Your task to perform on an android device: show emergency info Image 0: 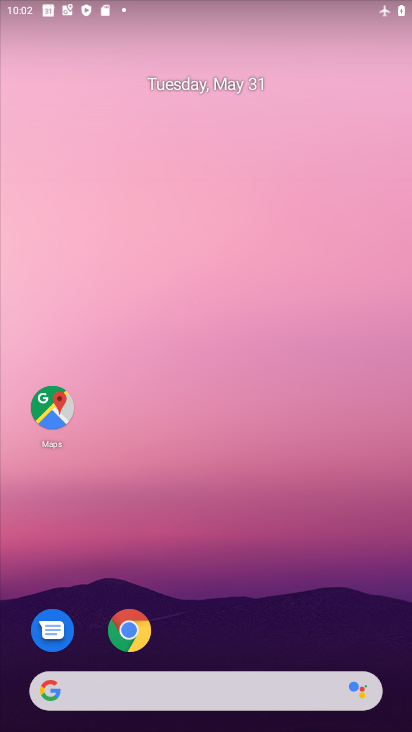
Step 0: drag from (236, 545) to (227, 242)
Your task to perform on an android device: show emergency info Image 1: 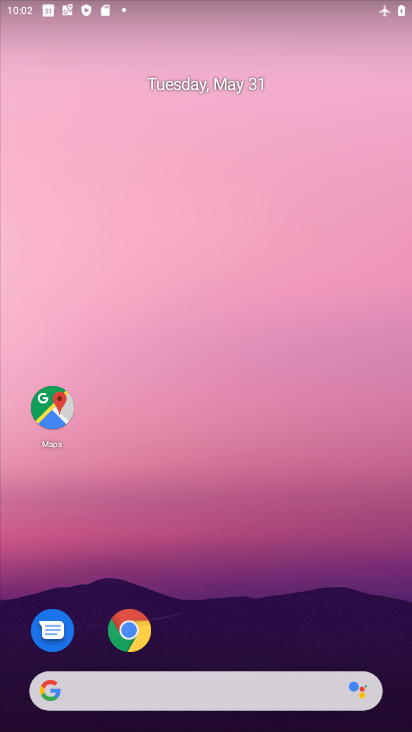
Step 1: drag from (229, 691) to (218, 252)
Your task to perform on an android device: show emergency info Image 2: 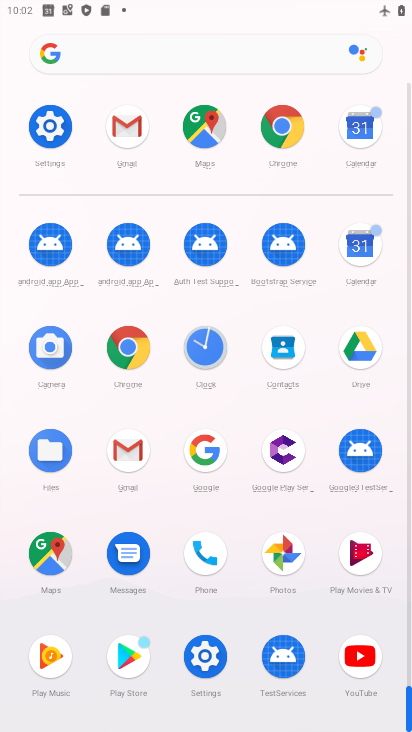
Step 2: click (42, 121)
Your task to perform on an android device: show emergency info Image 3: 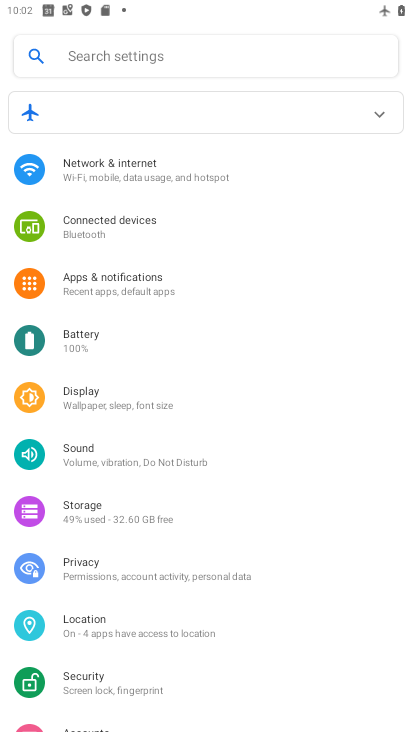
Step 3: drag from (212, 636) to (211, 189)
Your task to perform on an android device: show emergency info Image 4: 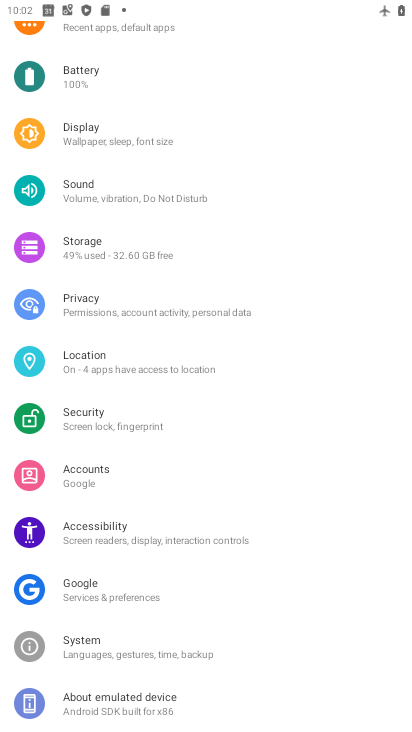
Step 4: drag from (173, 702) to (194, 399)
Your task to perform on an android device: show emergency info Image 5: 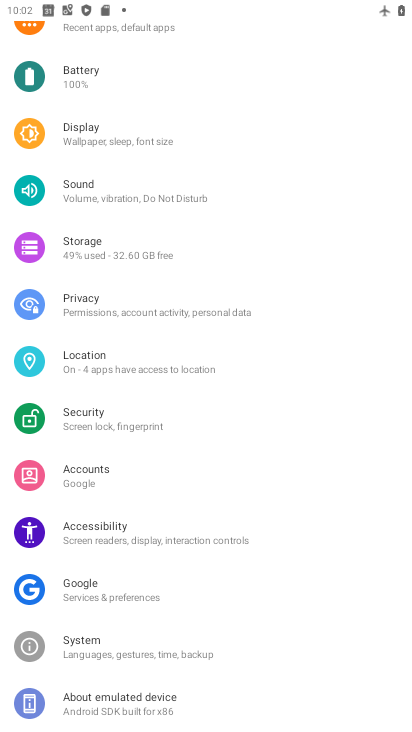
Step 5: drag from (167, 619) to (189, 311)
Your task to perform on an android device: show emergency info Image 6: 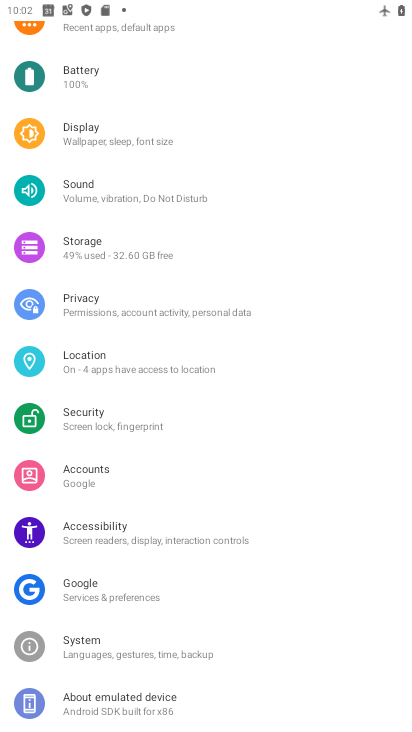
Step 6: click (152, 700)
Your task to perform on an android device: show emergency info Image 7: 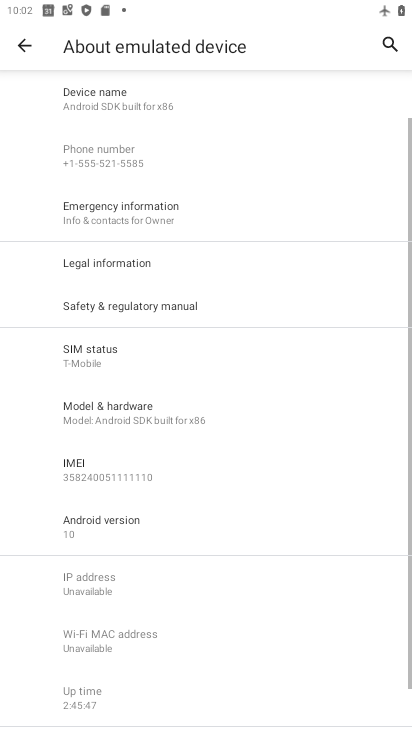
Step 7: click (143, 208)
Your task to perform on an android device: show emergency info Image 8: 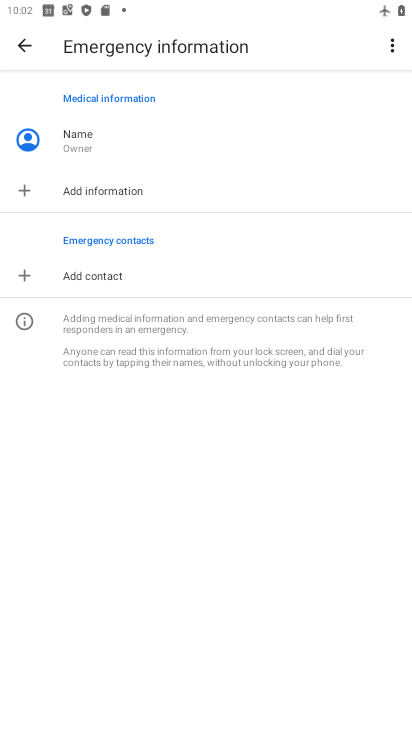
Step 8: task complete